Your task to perform on an android device: Check the weather Image 0: 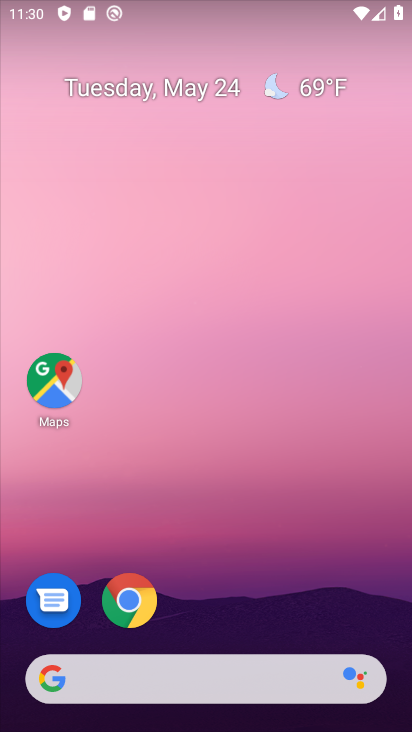
Step 0: click (266, 672)
Your task to perform on an android device: Check the weather Image 1: 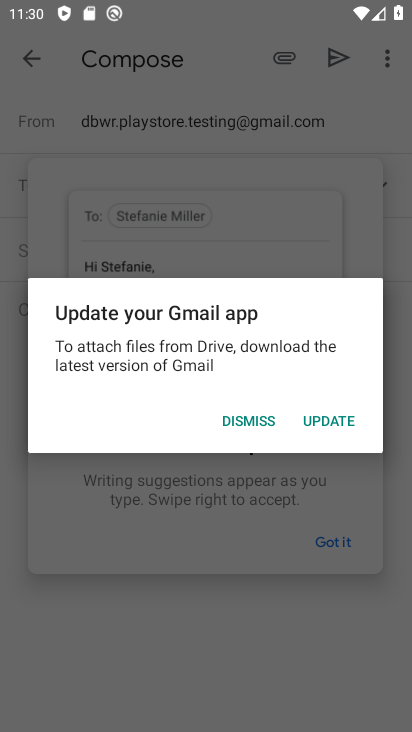
Step 1: press home button
Your task to perform on an android device: Check the weather Image 2: 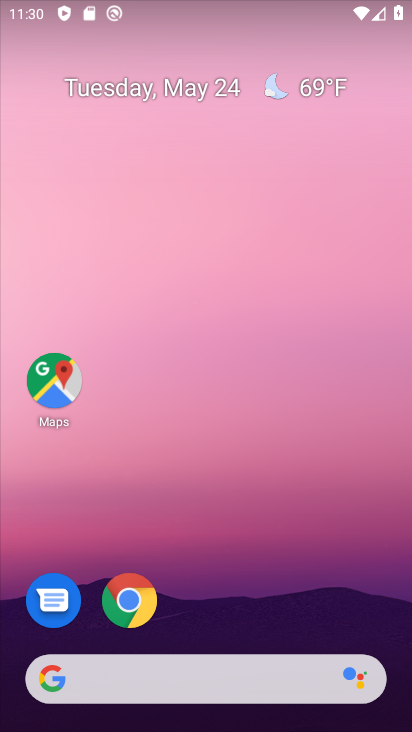
Step 2: click (254, 682)
Your task to perform on an android device: Check the weather Image 3: 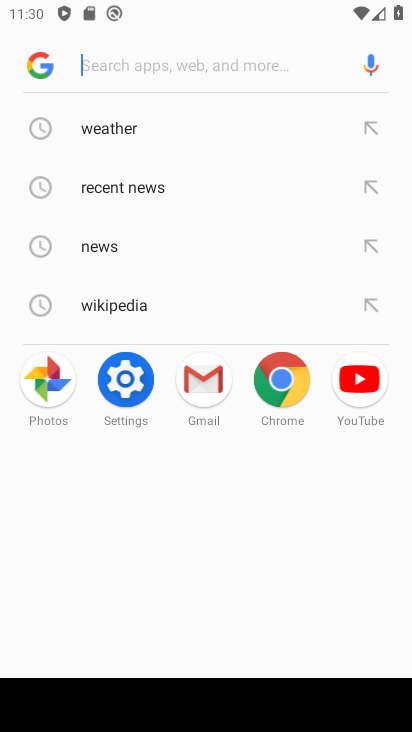
Step 3: click (126, 130)
Your task to perform on an android device: Check the weather Image 4: 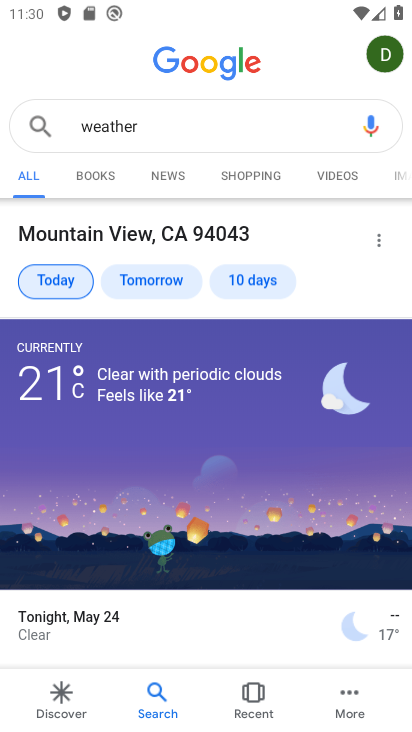
Step 4: task complete